Your task to perform on an android device: turn on priority inbox in the gmail app Image 0: 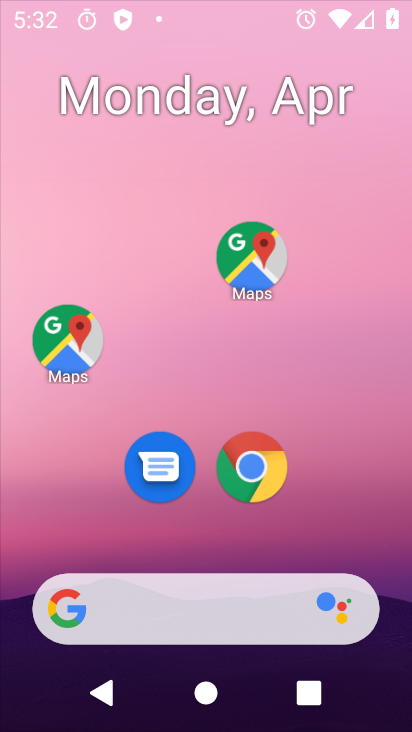
Step 0: click (328, 18)
Your task to perform on an android device: turn on priority inbox in the gmail app Image 1: 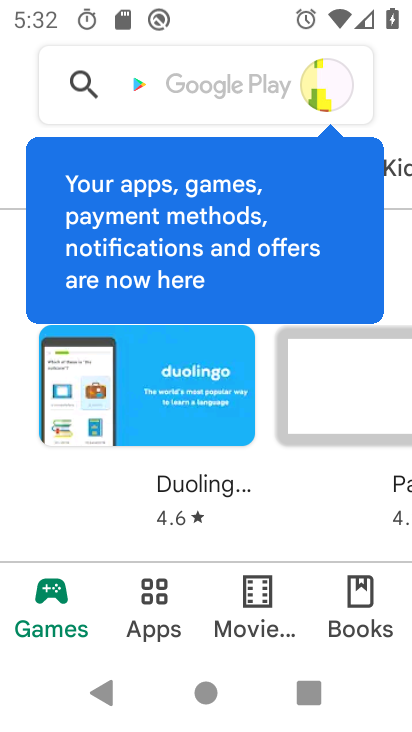
Step 1: press home button
Your task to perform on an android device: turn on priority inbox in the gmail app Image 2: 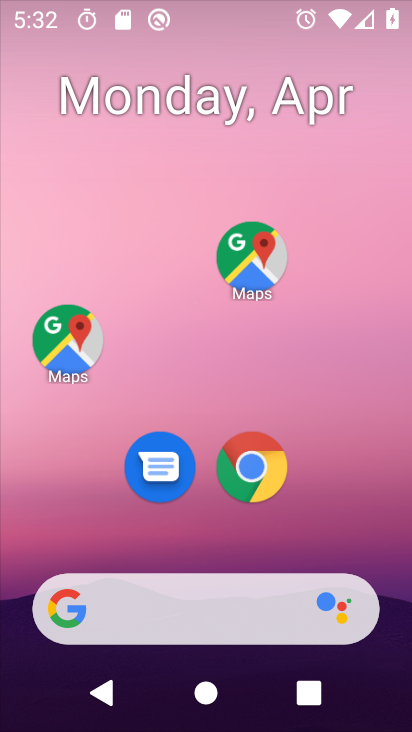
Step 2: drag from (293, 563) to (285, 2)
Your task to perform on an android device: turn on priority inbox in the gmail app Image 3: 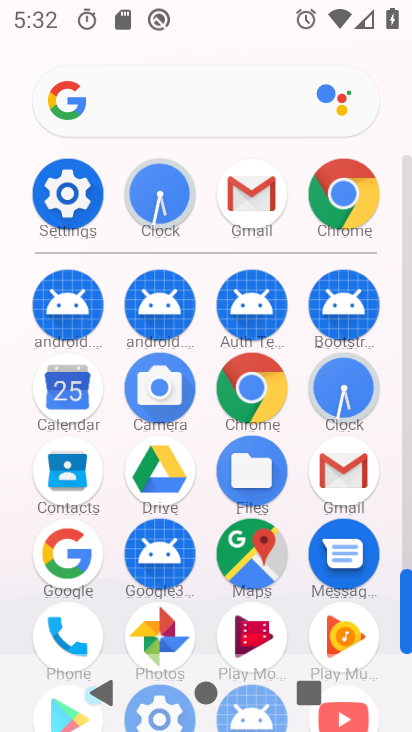
Step 3: click (334, 480)
Your task to perform on an android device: turn on priority inbox in the gmail app Image 4: 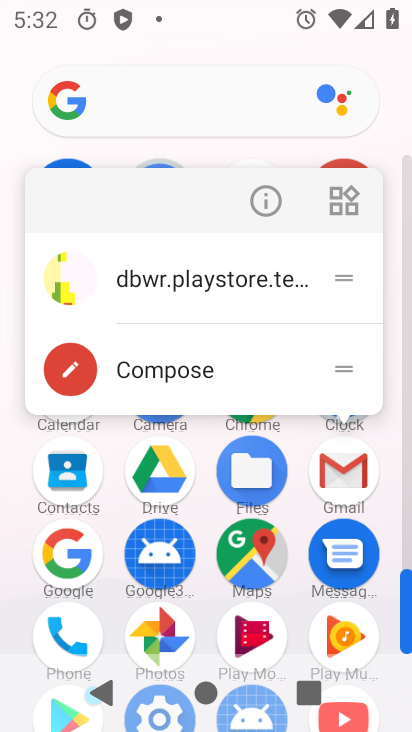
Step 4: click (334, 480)
Your task to perform on an android device: turn on priority inbox in the gmail app Image 5: 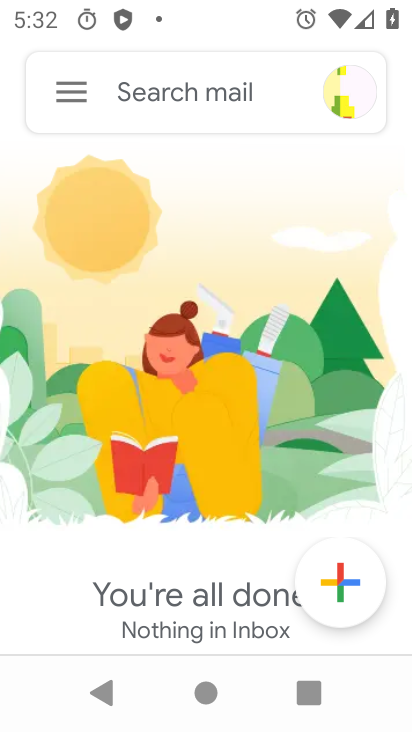
Step 5: click (355, 85)
Your task to perform on an android device: turn on priority inbox in the gmail app Image 6: 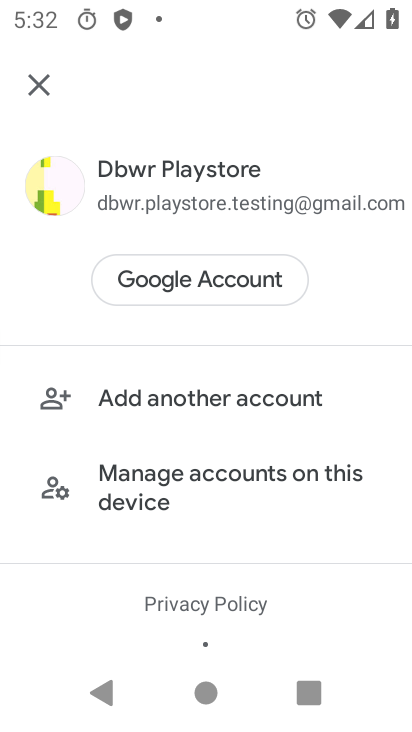
Step 6: click (35, 82)
Your task to perform on an android device: turn on priority inbox in the gmail app Image 7: 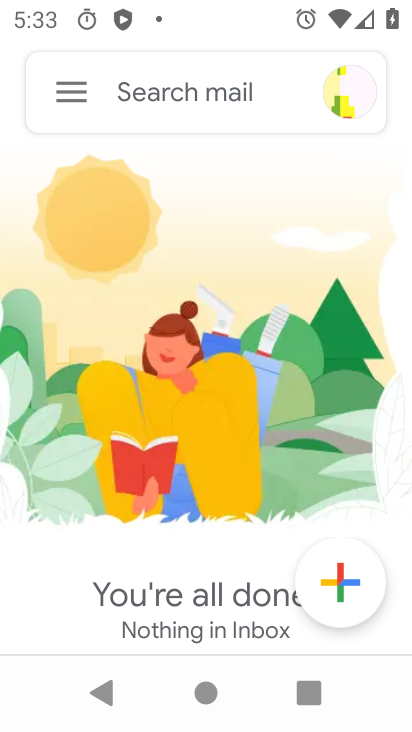
Step 7: click (71, 85)
Your task to perform on an android device: turn on priority inbox in the gmail app Image 8: 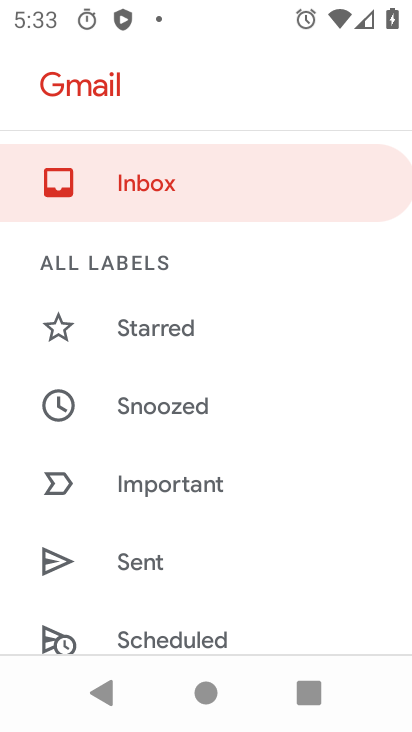
Step 8: drag from (229, 545) to (229, 112)
Your task to perform on an android device: turn on priority inbox in the gmail app Image 9: 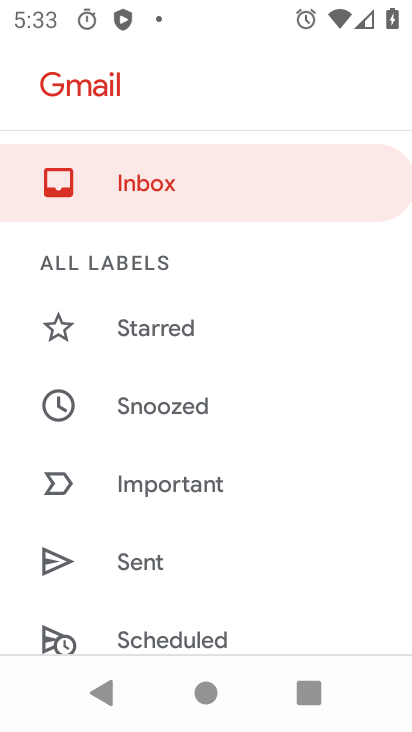
Step 9: drag from (287, 640) to (322, 113)
Your task to perform on an android device: turn on priority inbox in the gmail app Image 10: 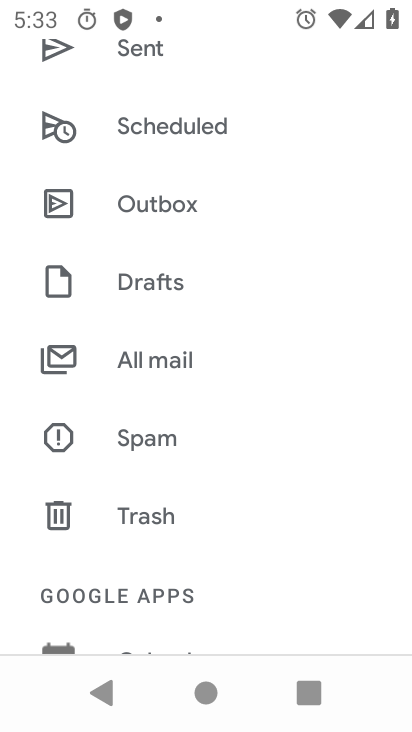
Step 10: drag from (243, 609) to (284, 190)
Your task to perform on an android device: turn on priority inbox in the gmail app Image 11: 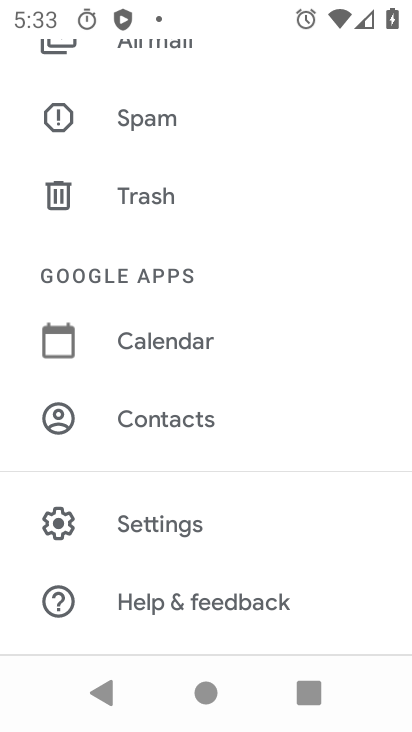
Step 11: click (179, 531)
Your task to perform on an android device: turn on priority inbox in the gmail app Image 12: 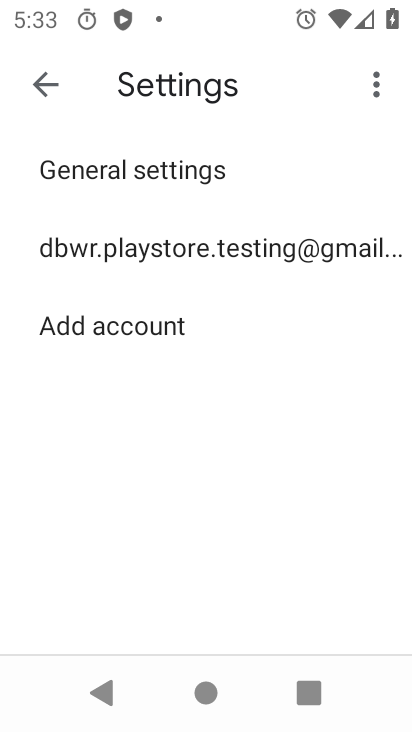
Step 12: click (222, 250)
Your task to perform on an android device: turn on priority inbox in the gmail app Image 13: 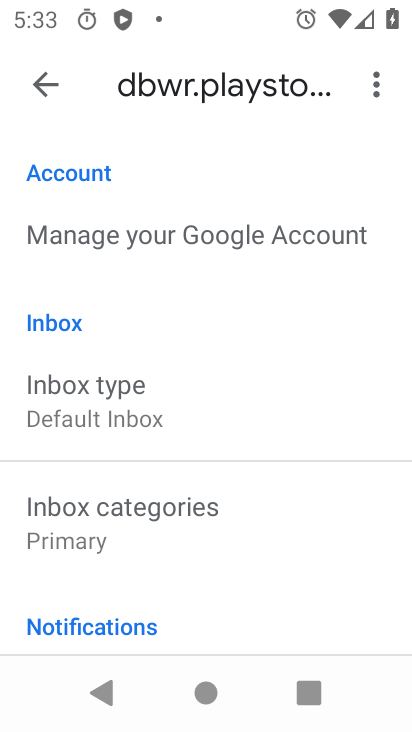
Step 13: click (157, 430)
Your task to perform on an android device: turn on priority inbox in the gmail app Image 14: 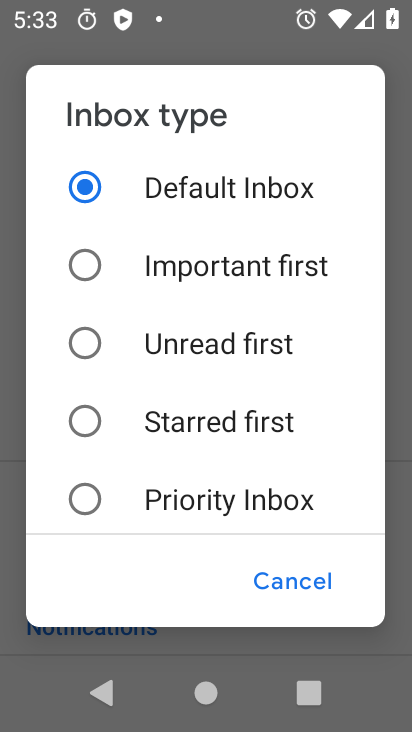
Step 14: click (192, 504)
Your task to perform on an android device: turn on priority inbox in the gmail app Image 15: 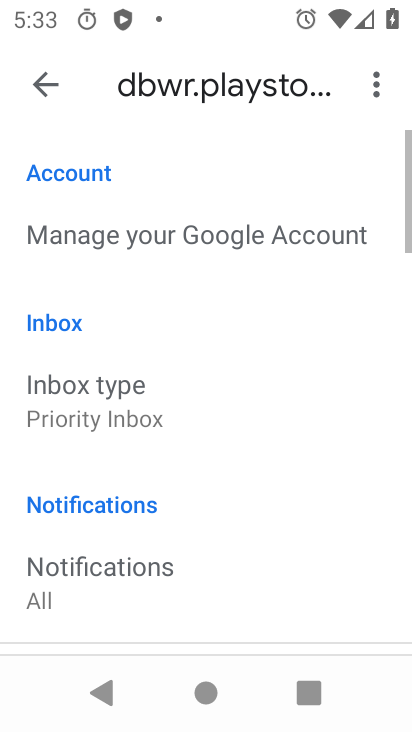
Step 15: task complete